Your task to perform on an android device: move an email to a new category in the gmail app Image 0: 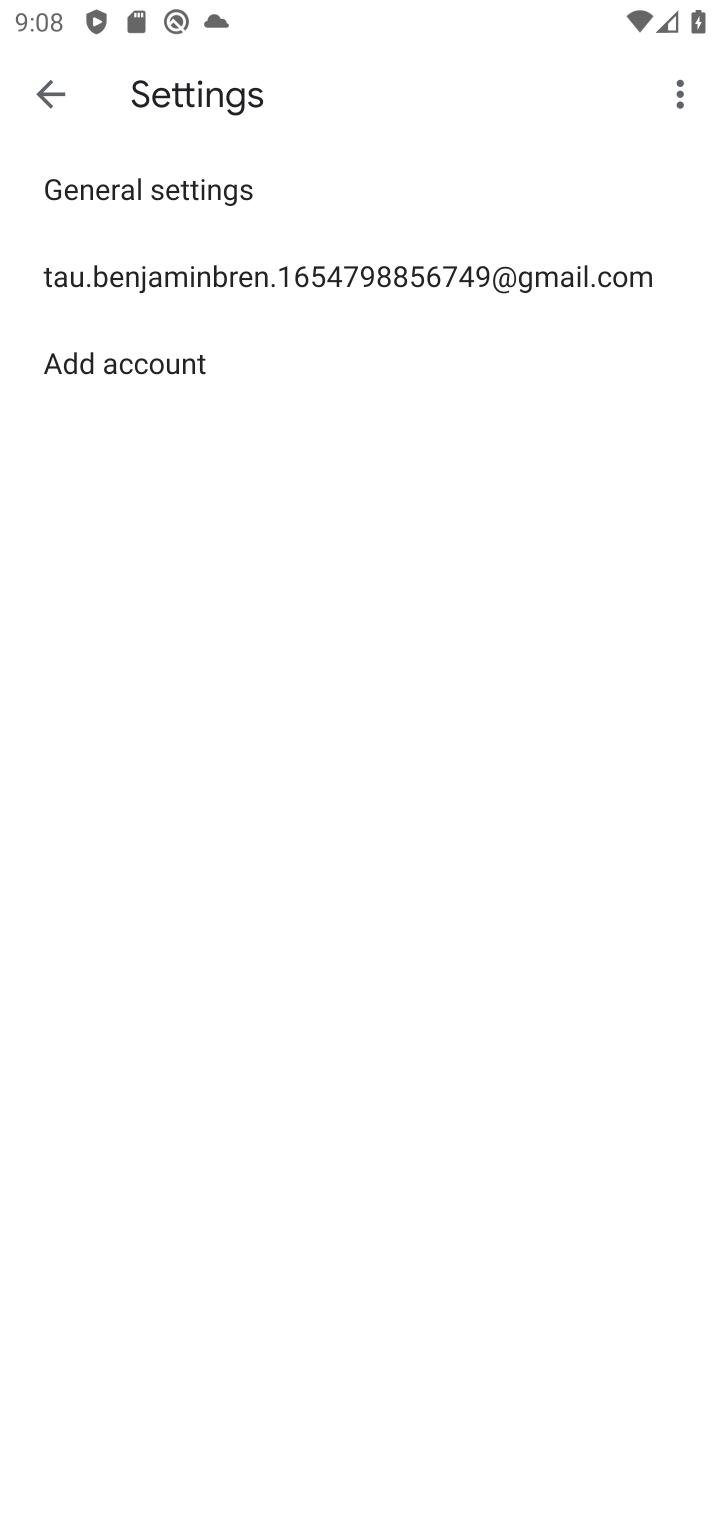
Step 0: press home button
Your task to perform on an android device: move an email to a new category in the gmail app Image 1: 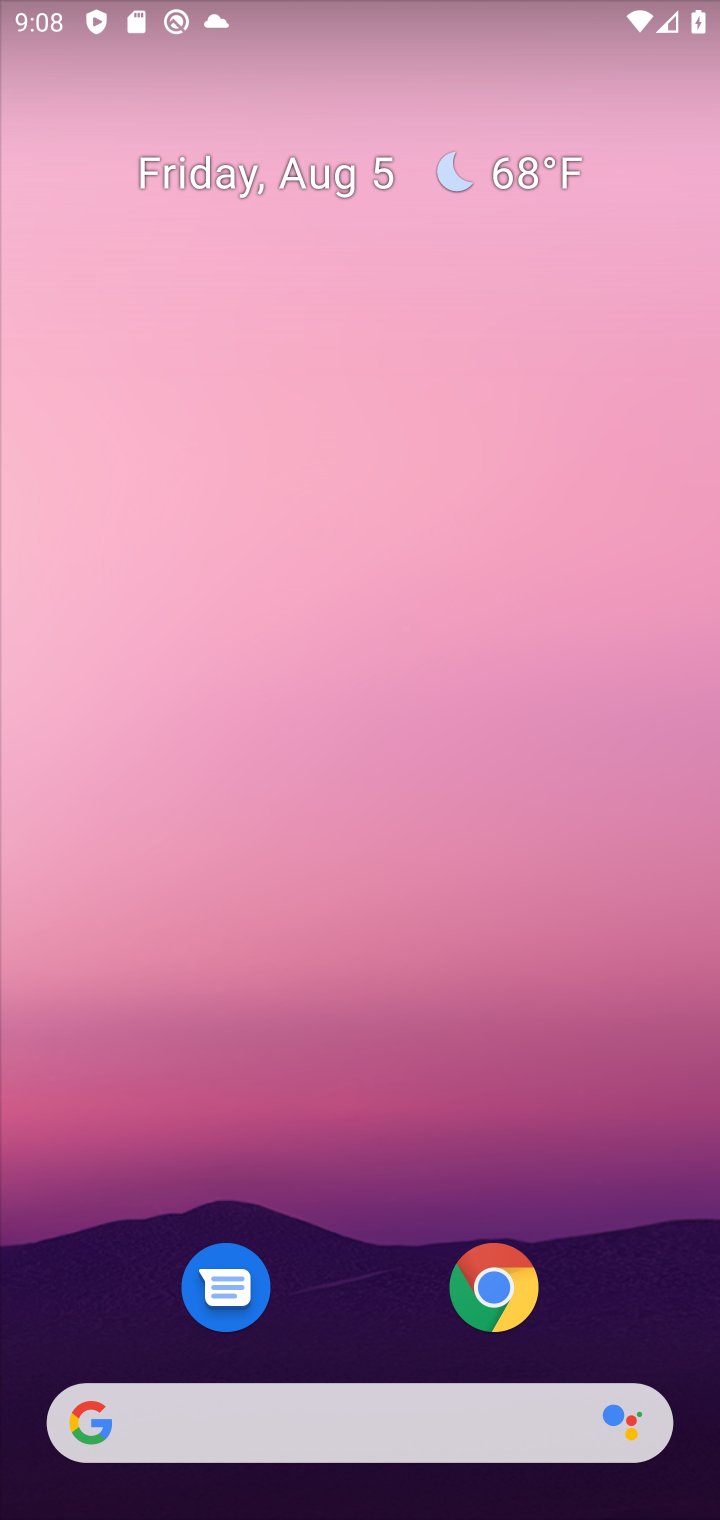
Step 1: drag from (365, 1362) to (360, 213)
Your task to perform on an android device: move an email to a new category in the gmail app Image 2: 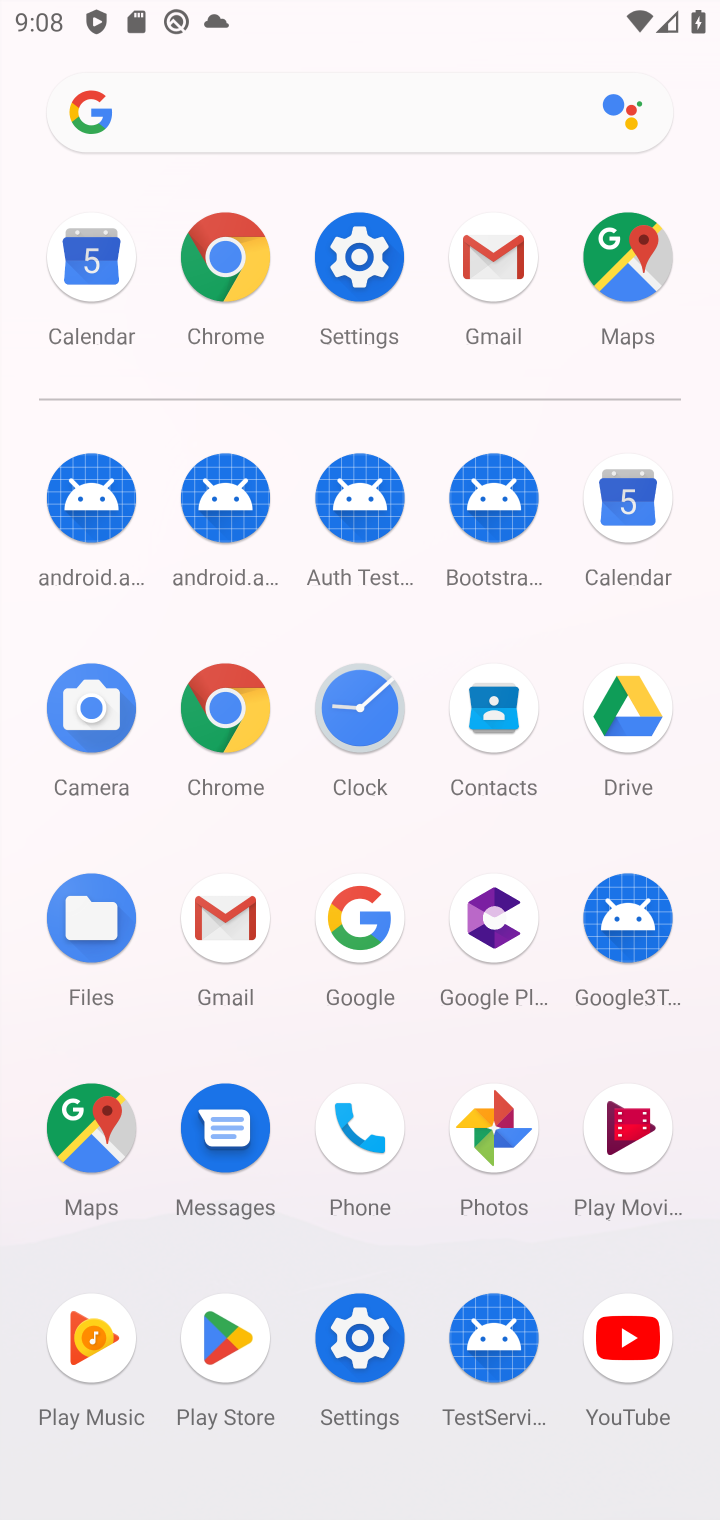
Step 2: click (227, 919)
Your task to perform on an android device: move an email to a new category in the gmail app Image 3: 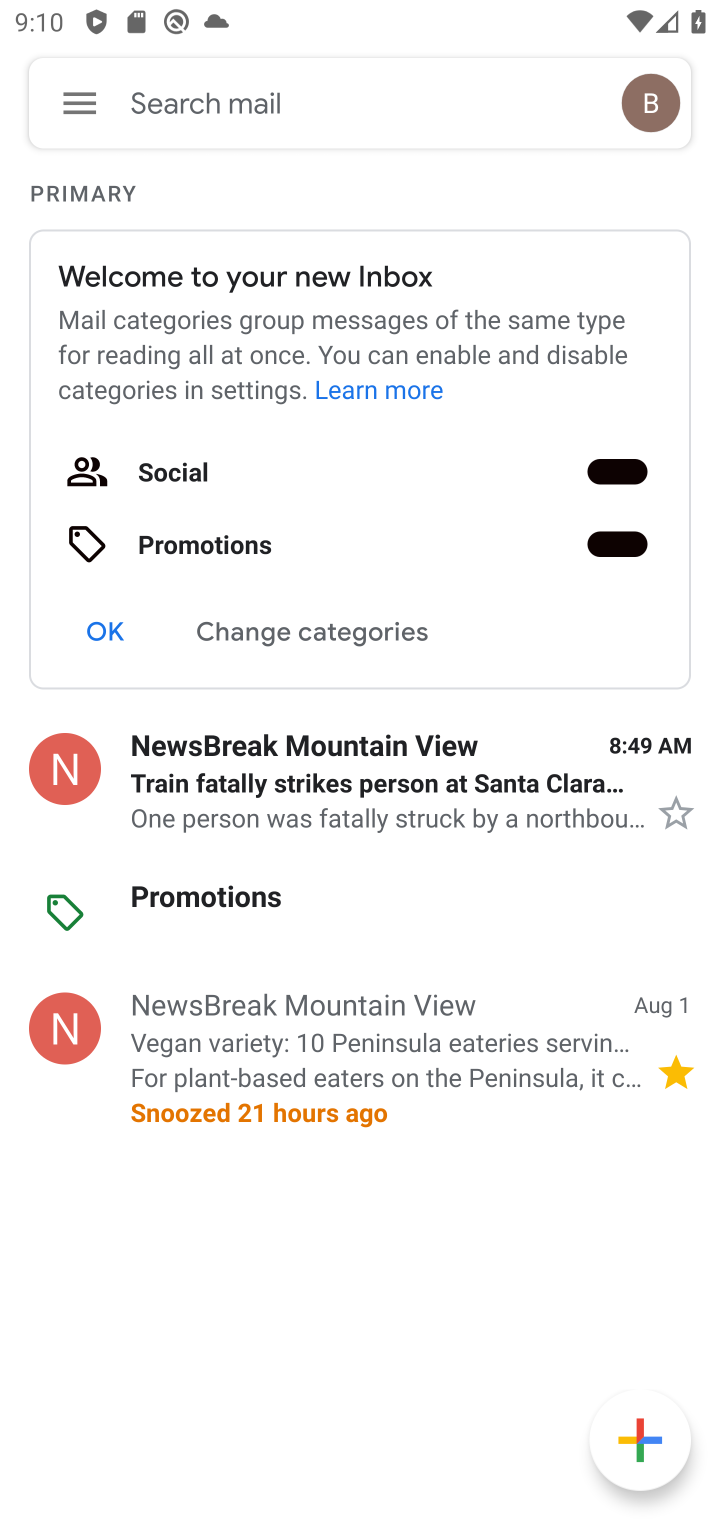
Step 3: click (335, 784)
Your task to perform on an android device: move an email to a new category in the gmail app Image 4: 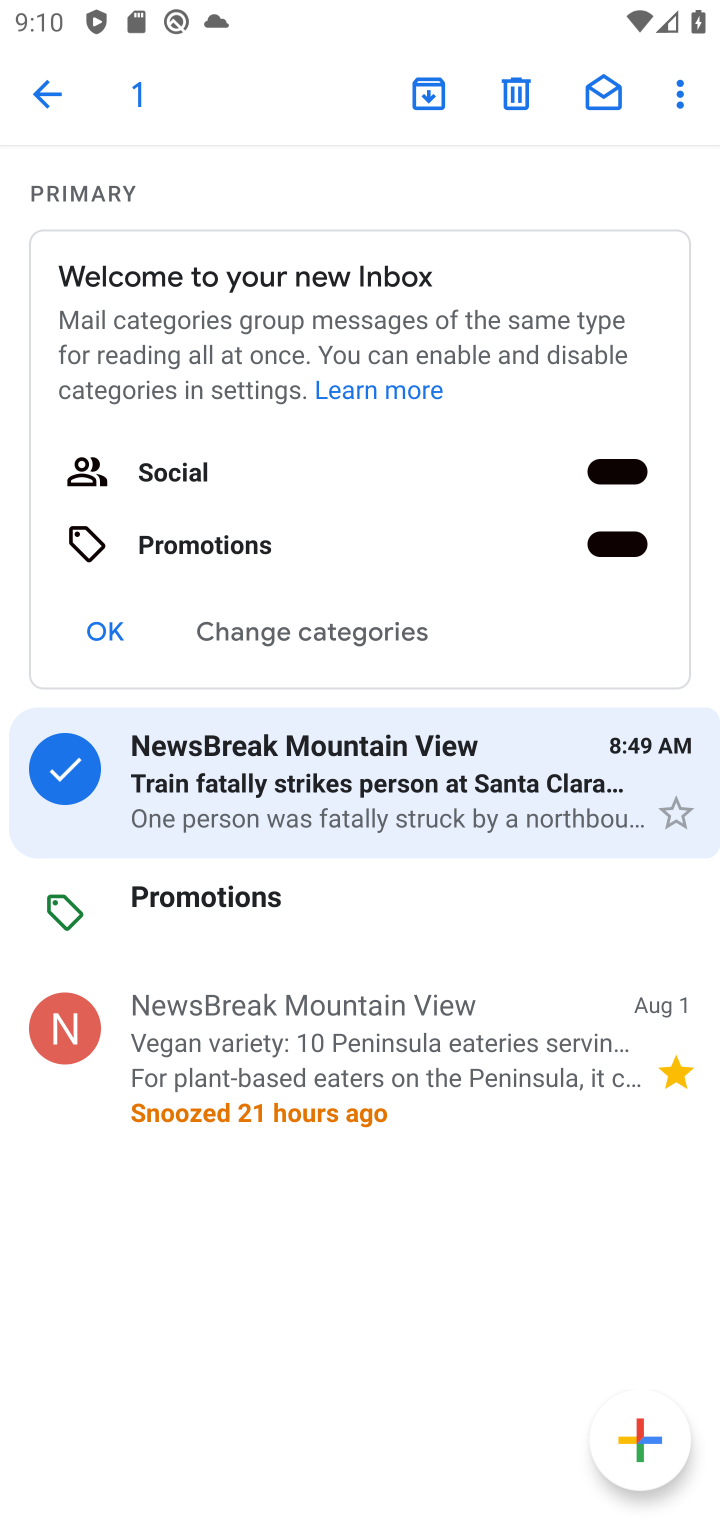
Step 4: click (679, 101)
Your task to perform on an android device: move an email to a new category in the gmail app Image 5: 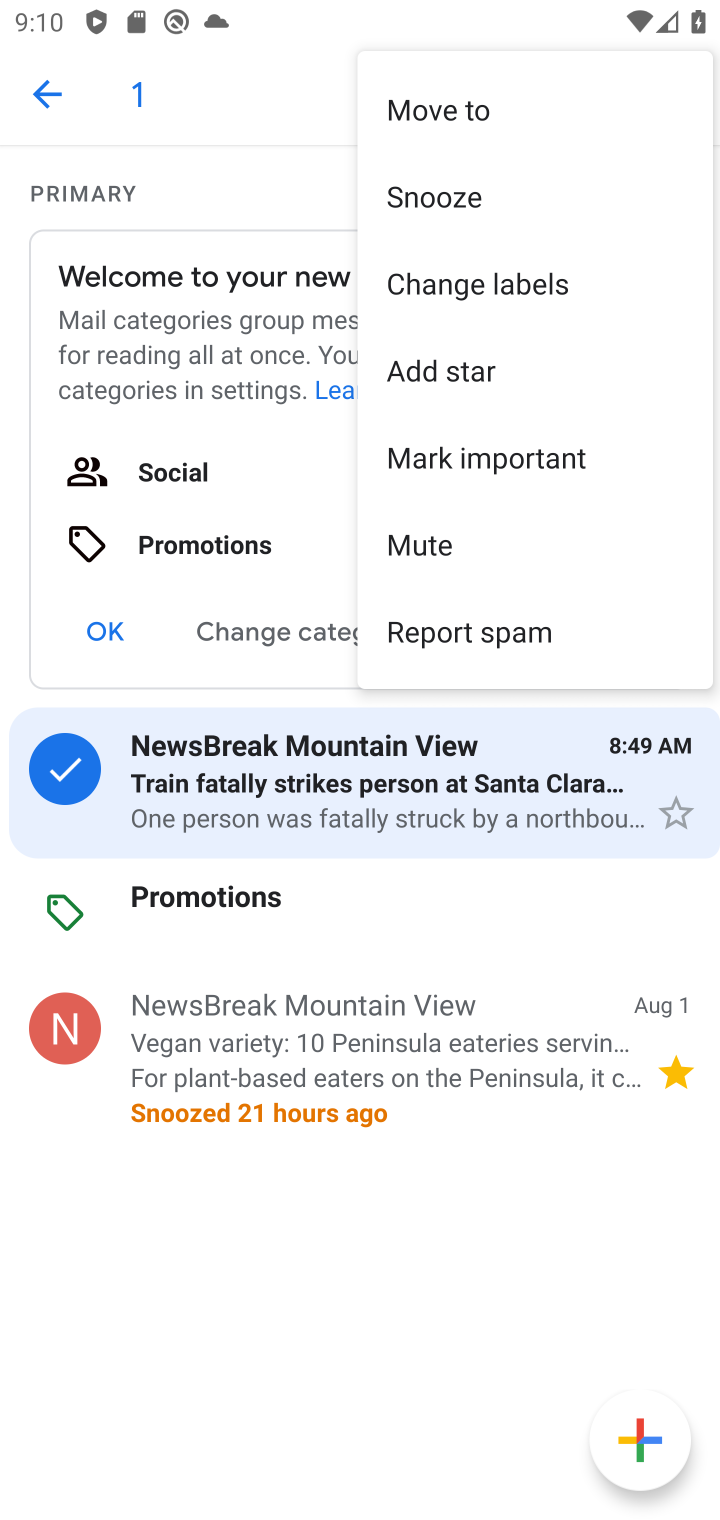
Step 5: click (454, 110)
Your task to perform on an android device: move an email to a new category in the gmail app Image 6: 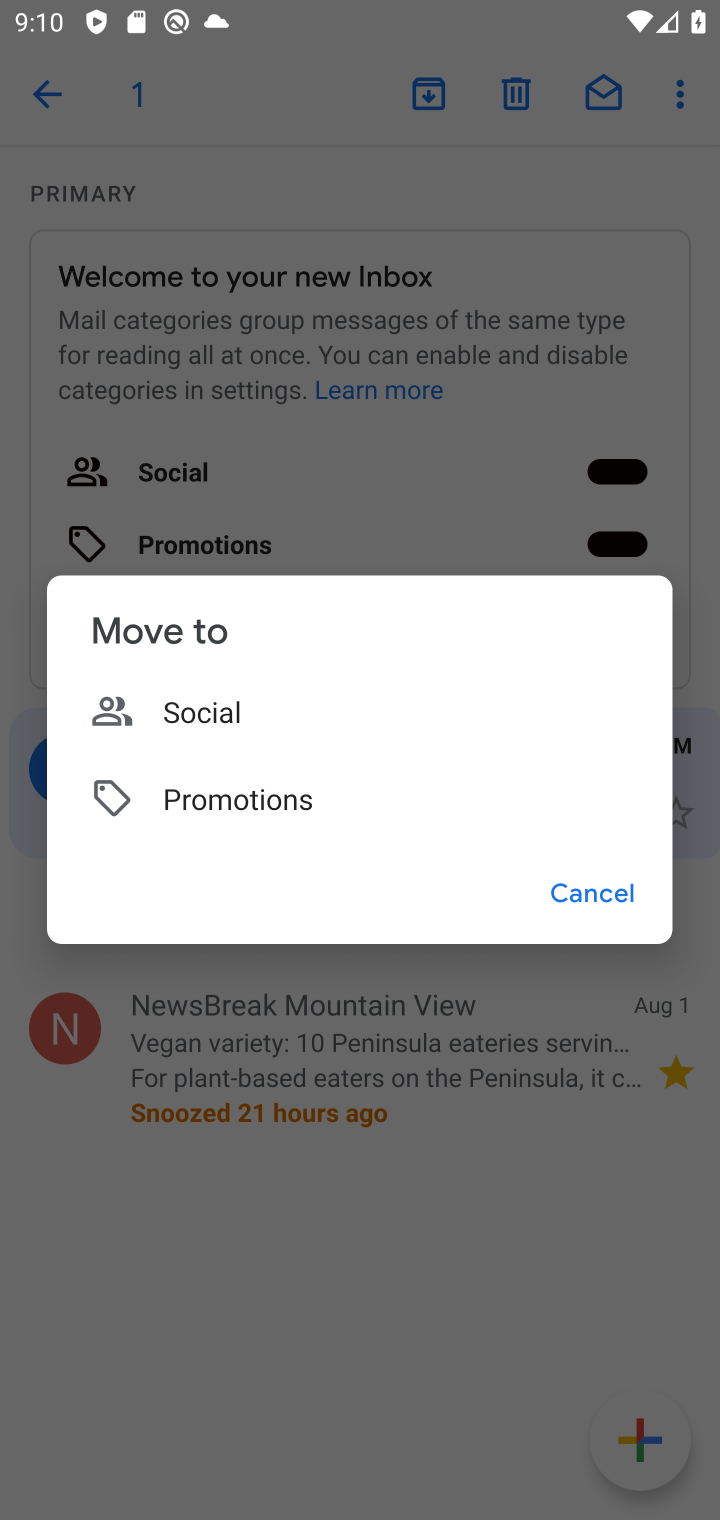
Step 6: click (187, 708)
Your task to perform on an android device: move an email to a new category in the gmail app Image 7: 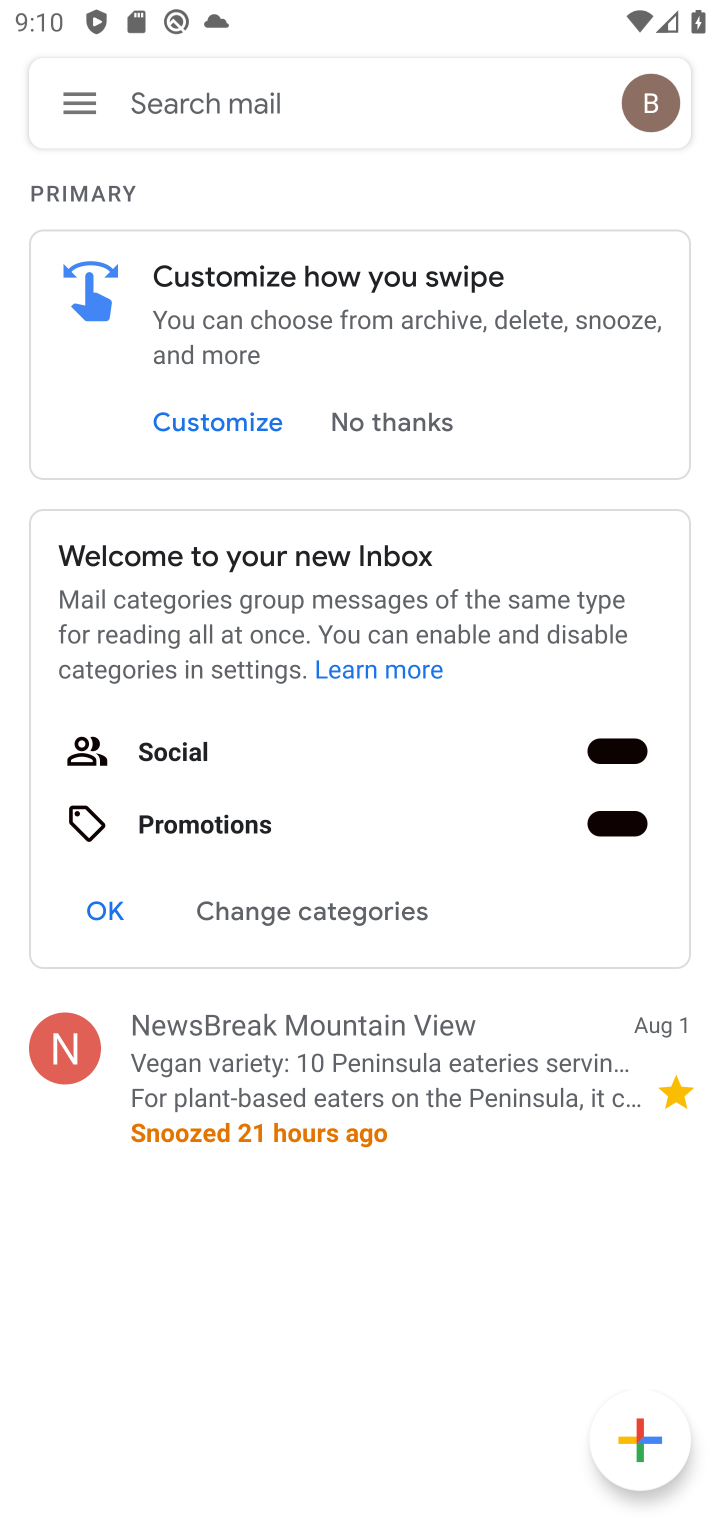
Step 7: task complete